Your task to perform on an android device: Open privacy settings Image 0: 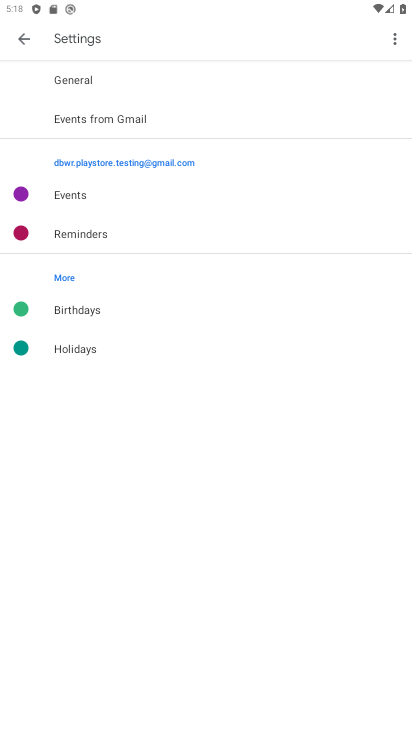
Step 0: press home button
Your task to perform on an android device: Open privacy settings Image 1: 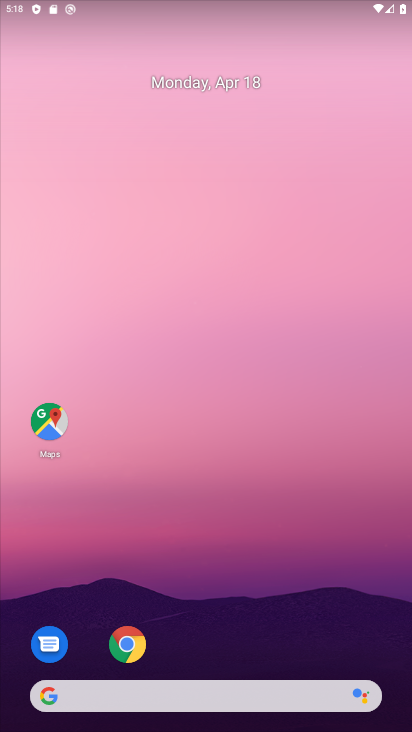
Step 1: drag from (201, 642) to (226, 183)
Your task to perform on an android device: Open privacy settings Image 2: 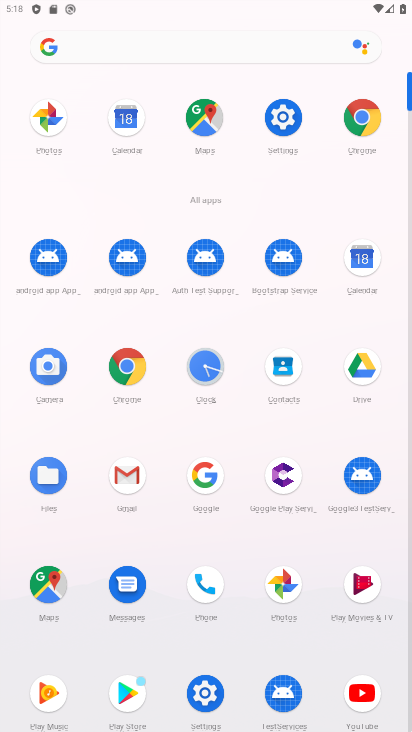
Step 2: click (281, 112)
Your task to perform on an android device: Open privacy settings Image 3: 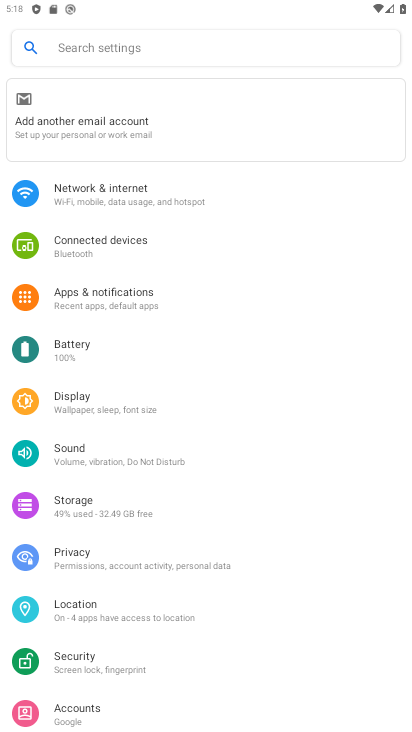
Step 3: click (103, 548)
Your task to perform on an android device: Open privacy settings Image 4: 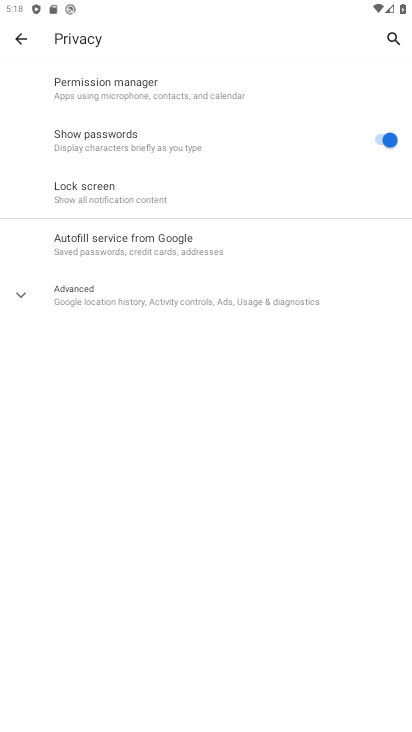
Step 4: task complete